Your task to perform on an android device: Check the news Image 0: 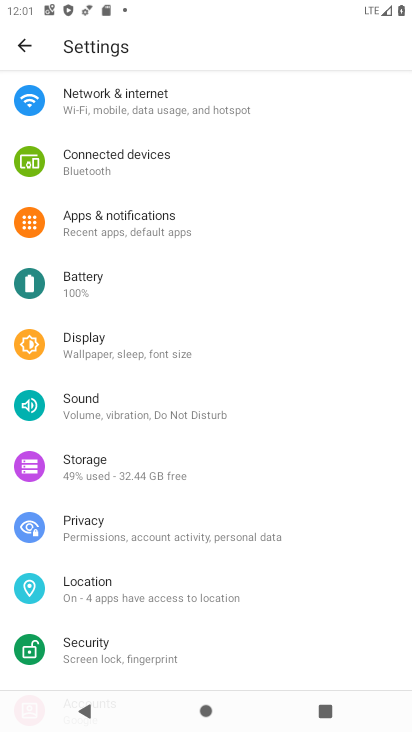
Step 0: press back button
Your task to perform on an android device: Check the news Image 1: 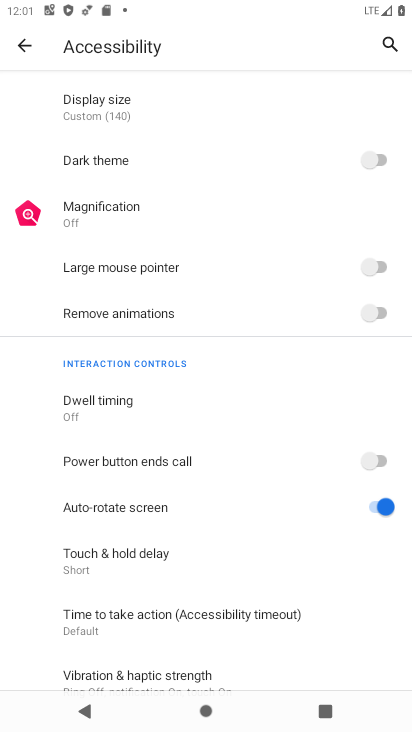
Step 1: press home button
Your task to perform on an android device: Check the news Image 2: 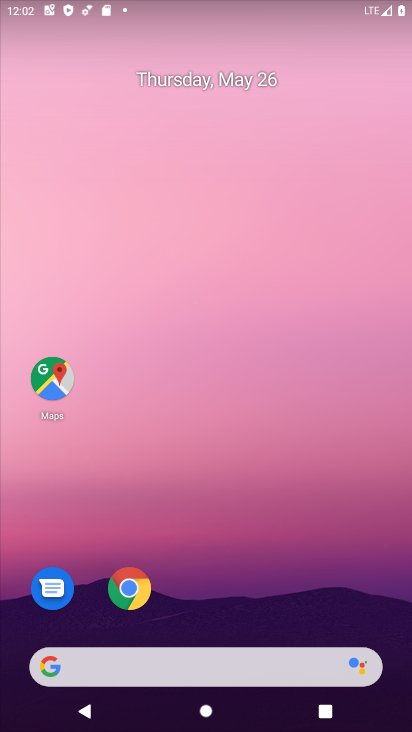
Step 2: drag from (252, 554) to (222, 35)
Your task to perform on an android device: Check the news Image 3: 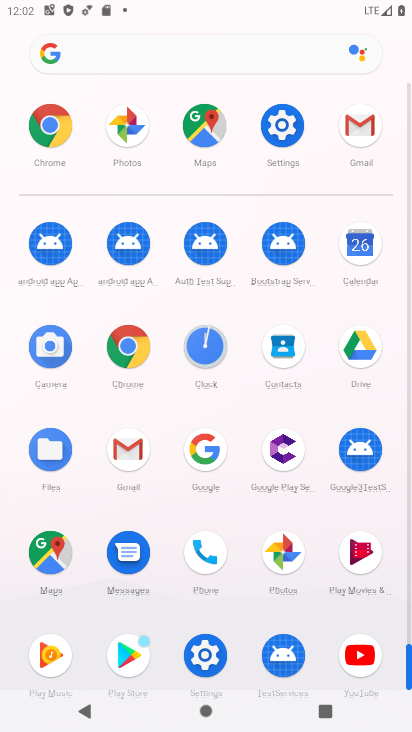
Step 3: click (126, 345)
Your task to perform on an android device: Check the news Image 4: 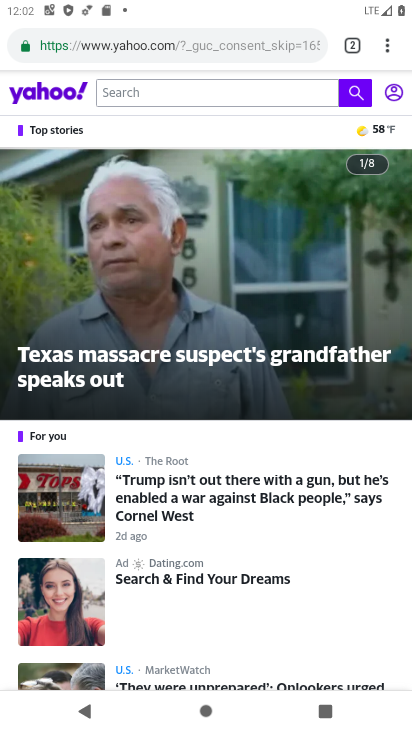
Step 4: click (162, 41)
Your task to perform on an android device: Check the news Image 5: 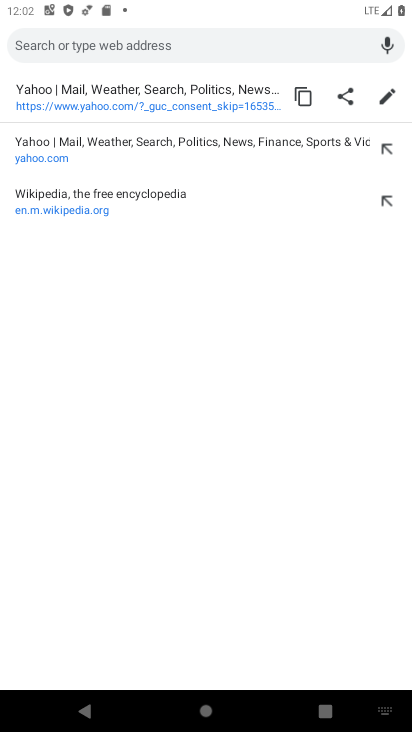
Step 5: type "Check the news"
Your task to perform on an android device: Check the news Image 6: 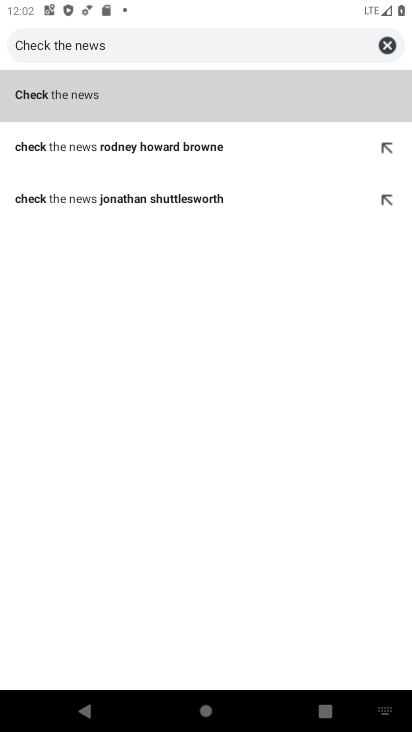
Step 6: click (151, 87)
Your task to perform on an android device: Check the news Image 7: 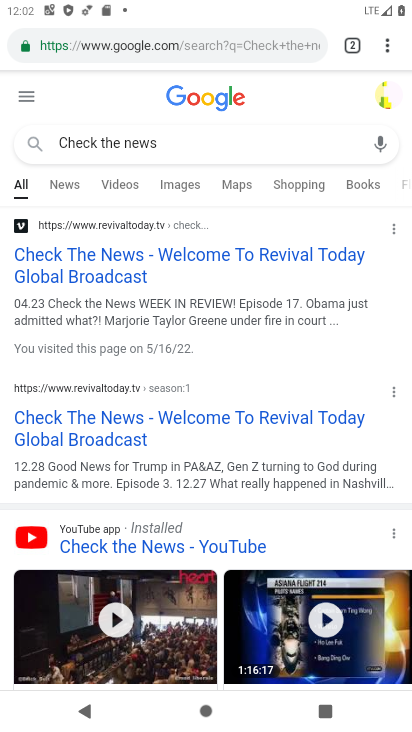
Step 7: click (66, 183)
Your task to perform on an android device: Check the news Image 8: 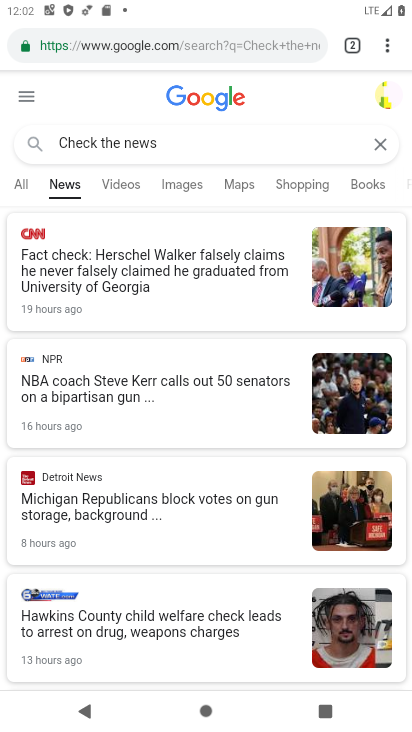
Step 8: task complete